Your task to perform on an android device: Show me the alarms in the clock app Image 0: 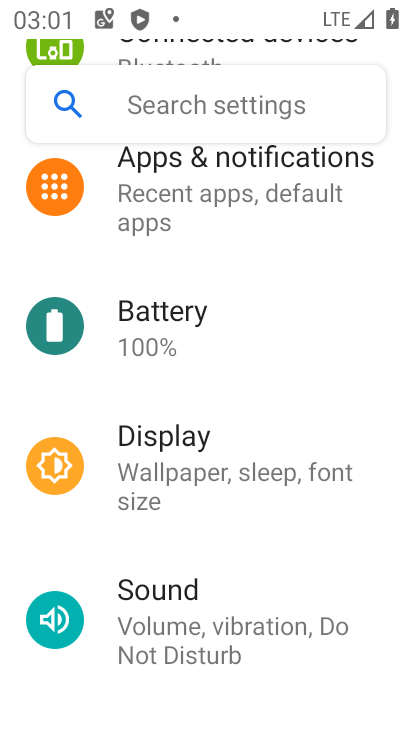
Step 0: press home button
Your task to perform on an android device: Show me the alarms in the clock app Image 1: 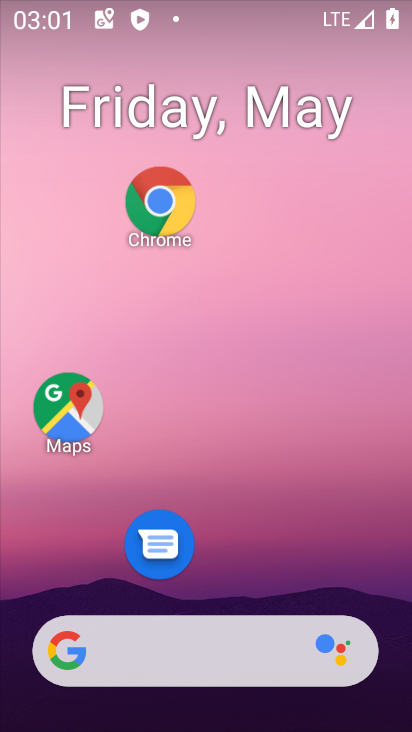
Step 1: drag from (321, 556) to (269, 172)
Your task to perform on an android device: Show me the alarms in the clock app Image 2: 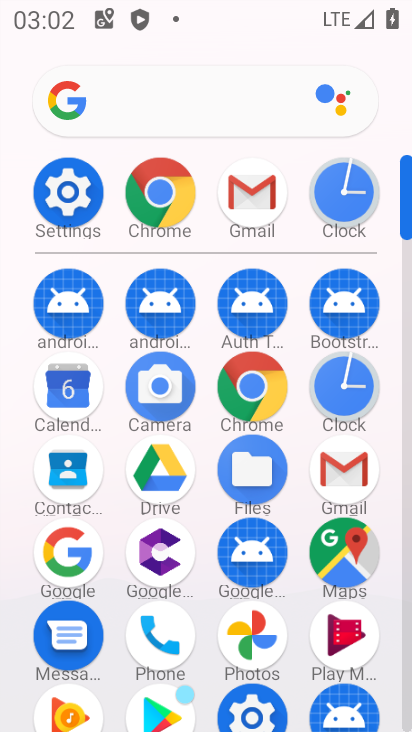
Step 2: click (346, 390)
Your task to perform on an android device: Show me the alarms in the clock app Image 3: 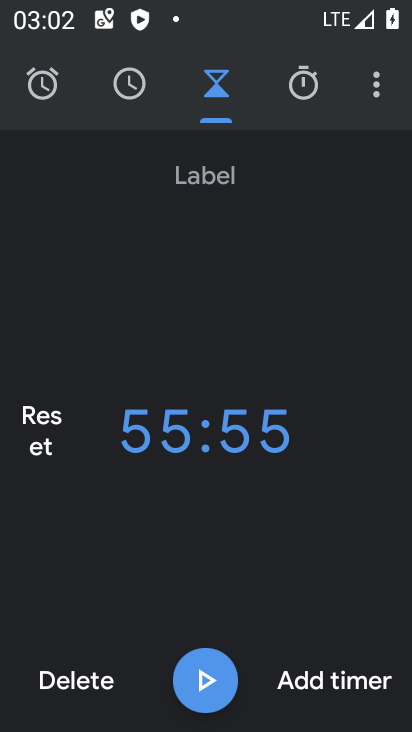
Step 3: click (382, 83)
Your task to perform on an android device: Show me the alarms in the clock app Image 4: 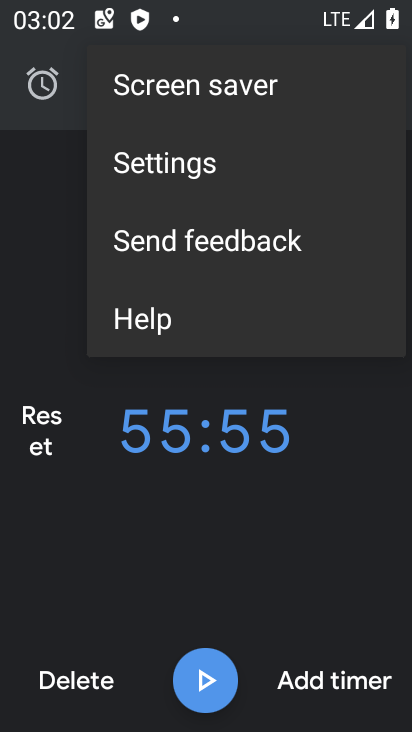
Step 4: click (222, 524)
Your task to perform on an android device: Show me the alarms in the clock app Image 5: 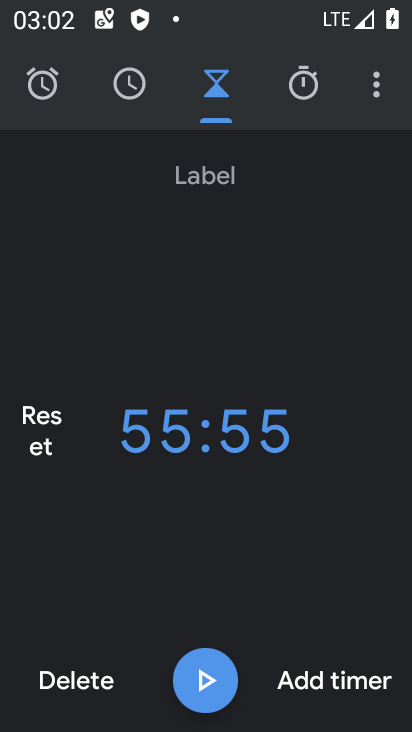
Step 5: click (294, 102)
Your task to perform on an android device: Show me the alarms in the clock app Image 6: 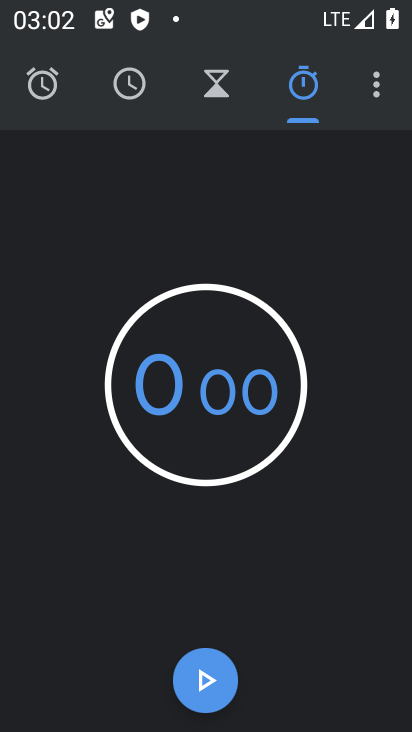
Step 6: task complete